Your task to perform on an android device: change keyboard looks Image 0: 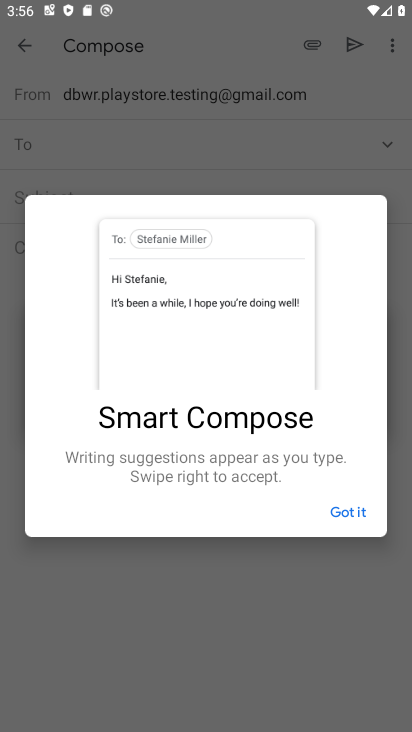
Step 0: press home button
Your task to perform on an android device: change keyboard looks Image 1: 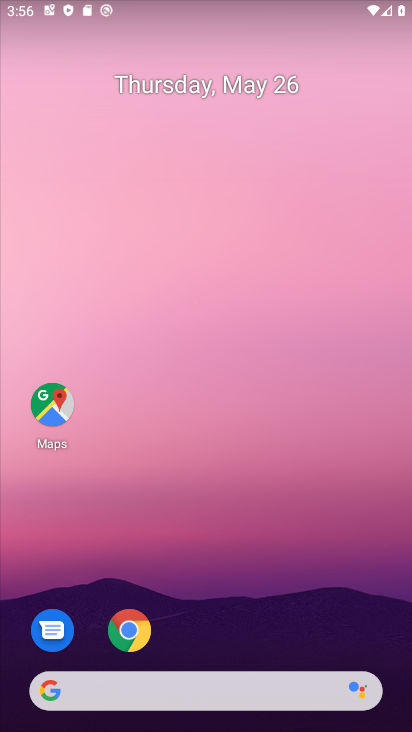
Step 1: drag from (249, 617) to (254, 3)
Your task to perform on an android device: change keyboard looks Image 2: 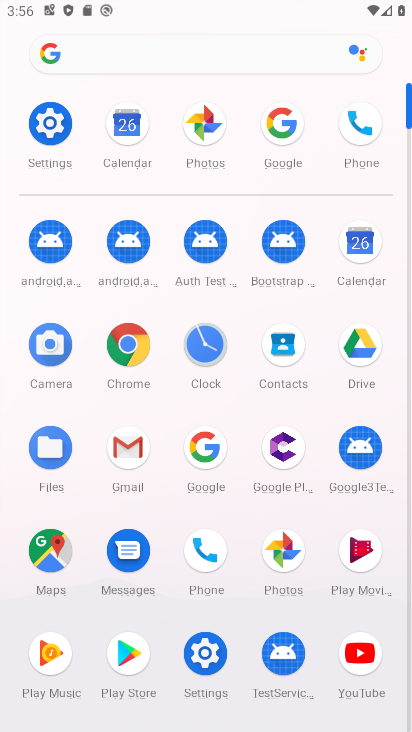
Step 2: click (50, 124)
Your task to perform on an android device: change keyboard looks Image 3: 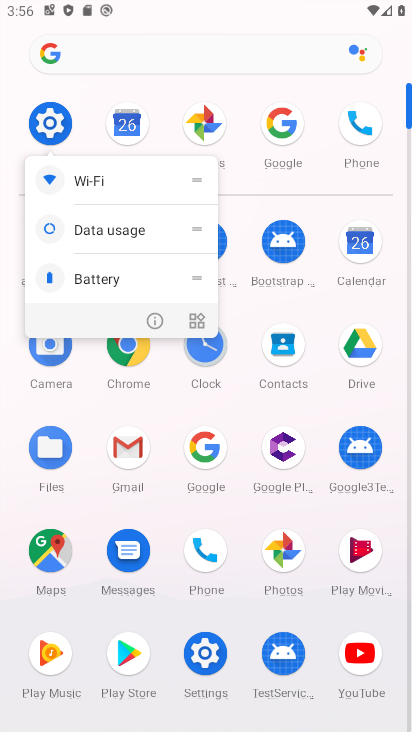
Step 3: click (50, 124)
Your task to perform on an android device: change keyboard looks Image 4: 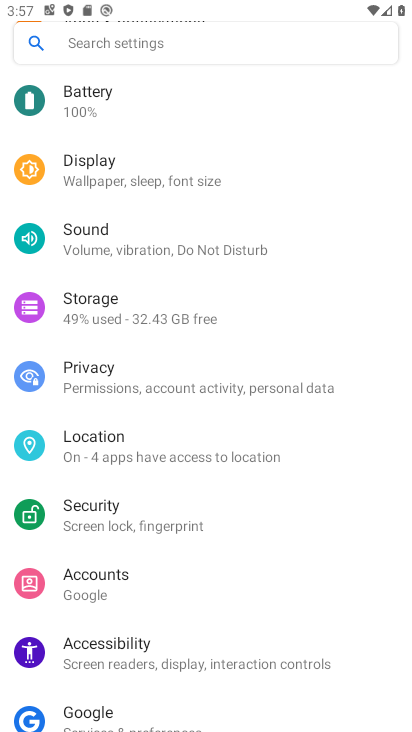
Step 4: drag from (180, 577) to (219, 502)
Your task to perform on an android device: change keyboard looks Image 5: 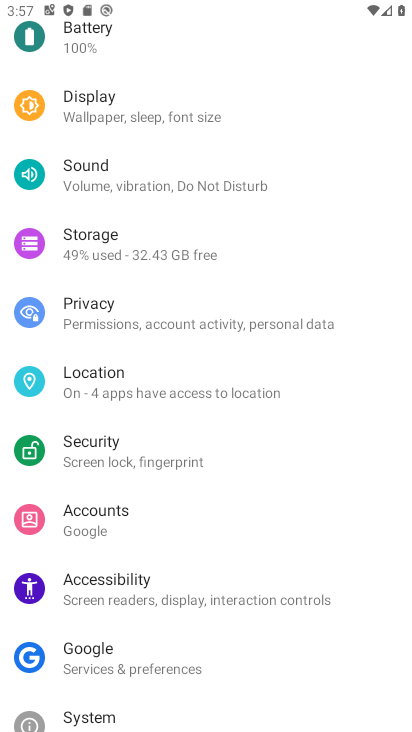
Step 5: drag from (175, 627) to (241, 545)
Your task to perform on an android device: change keyboard looks Image 6: 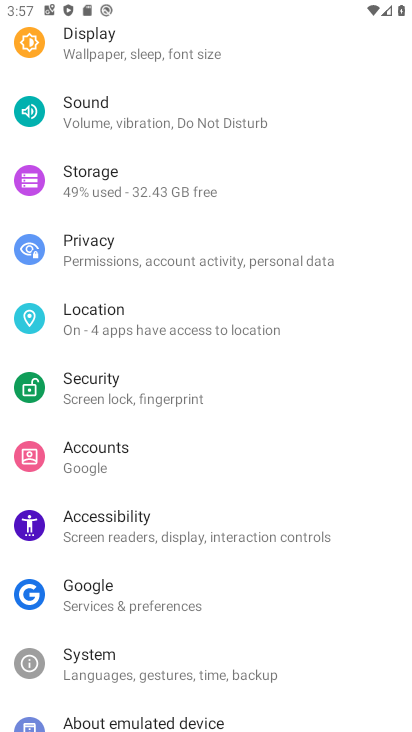
Step 6: click (118, 673)
Your task to perform on an android device: change keyboard looks Image 7: 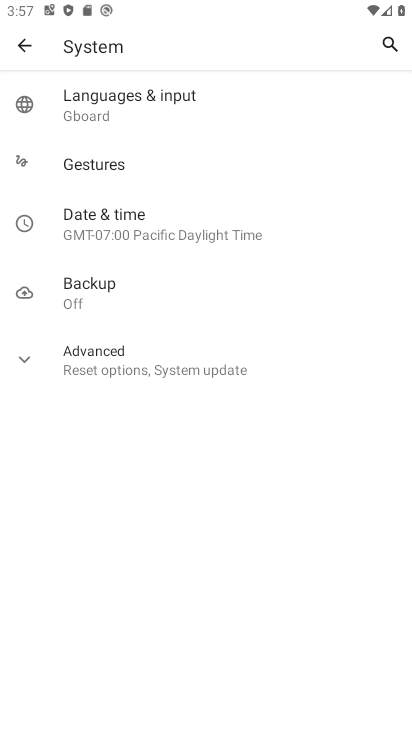
Step 7: click (96, 106)
Your task to perform on an android device: change keyboard looks Image 8: 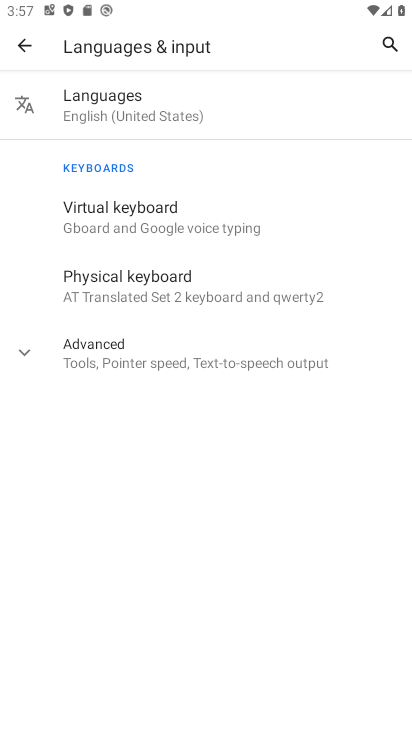
Step 8: click (125, 219)
Your task to perform on an android device: change keyboard looks Image 9: 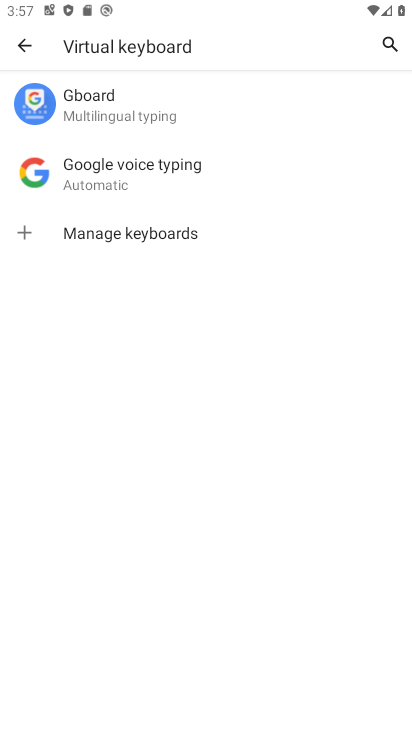
Step 9: click (106, 111)
Your task to perform on an android device: change keyboard looks Image 10: 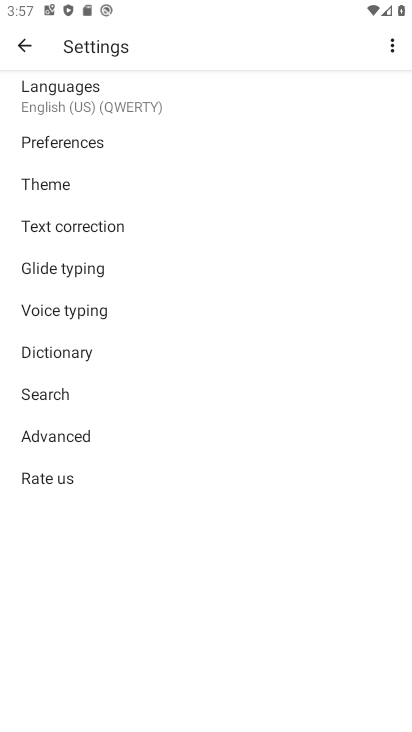
Step 10: click (51, 193)
Your task to perform on an android device: change keyboard looks Image 11: 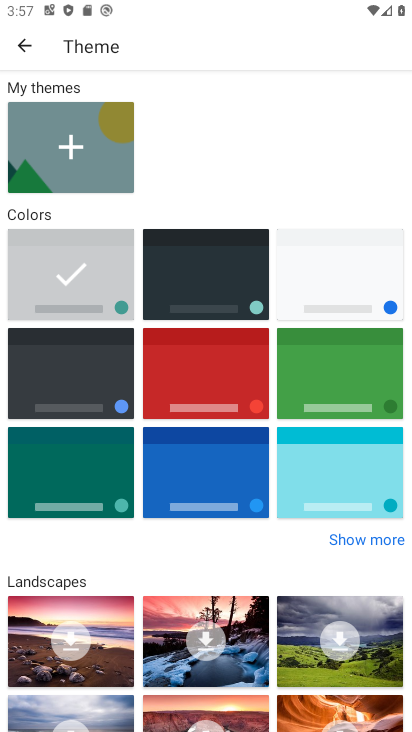
Step 11: click (180, 461)
Your task to perform on an android device: change keyboard looks Image 12: 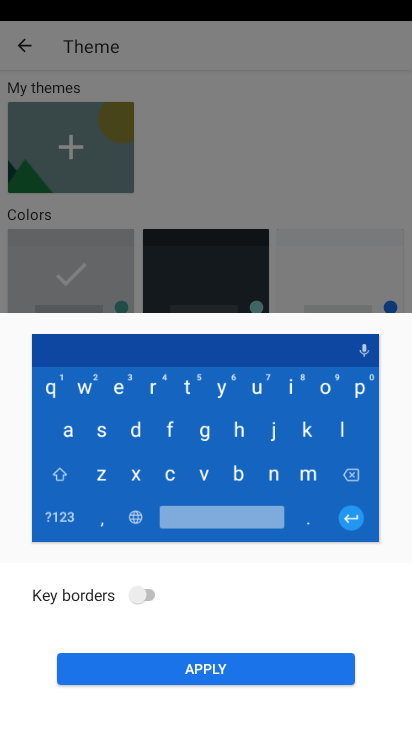
Step 12: click (142, 593)
Your task to perform on an android device: change keyboard looks Image 13: 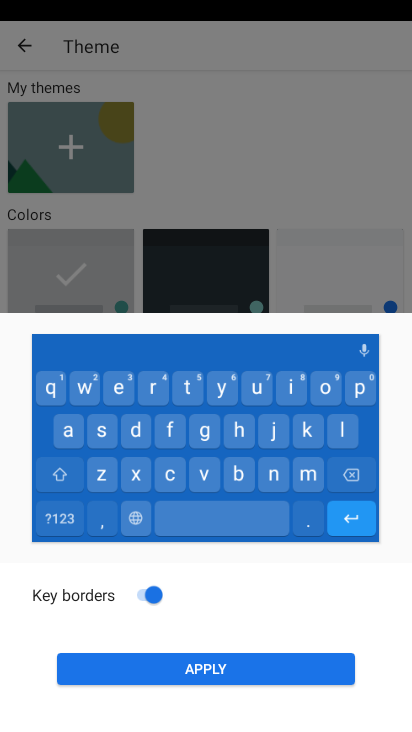
Step 13: click (211, 670)
Your task to perform on an android device: change keyboard looks Image 14: 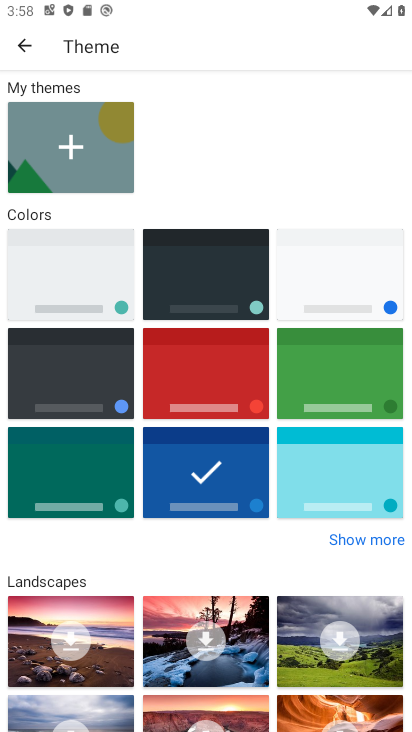
Step 14: task complete